Your task to perform on an android device: View the shopping cart on newegg. Search for macbook pro 15 inch on newegg, select the first entry, add it to the cart, then select checkout. Image 0: 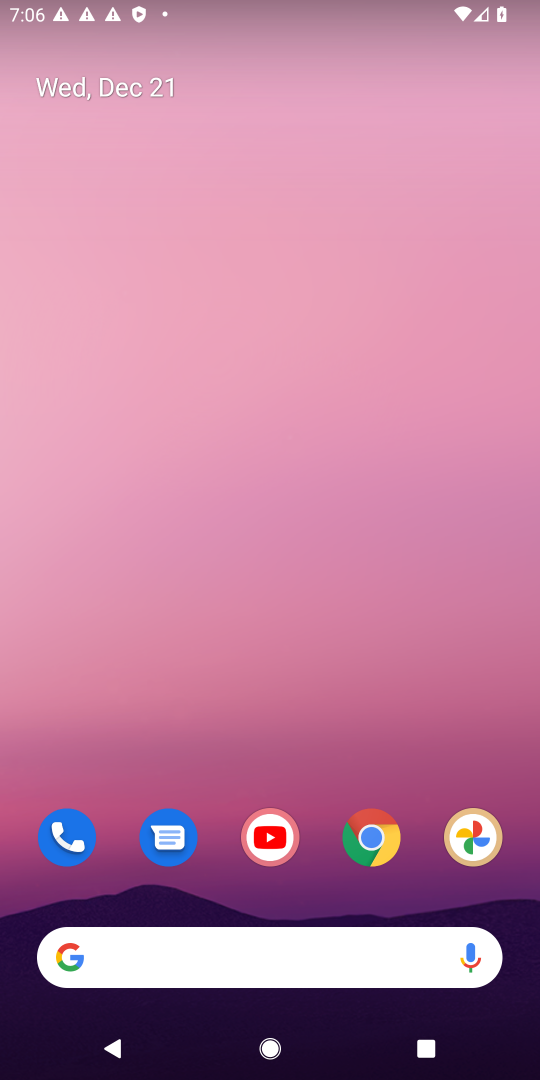
Step 0: click (237, 260)
Your task to perform on an android device: View the shopping cart on newegg. Search for macbook pro 15 inch on newegg, select the first entry, add it to the cart, then select checkout. Image 1: 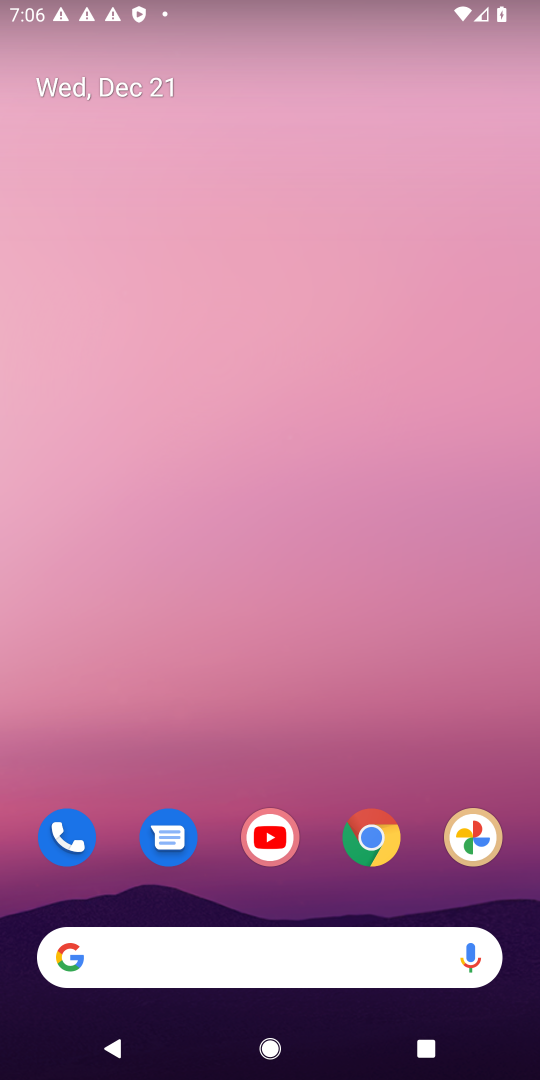
Step 1: drag from (203, 946) to (181, 263)
Your task to perform on an android device: View the shopping cart on newegg. Search for macbook pro 15 inch on newegg, select the first entry, add it to the cart, then select checkout. Image 2: 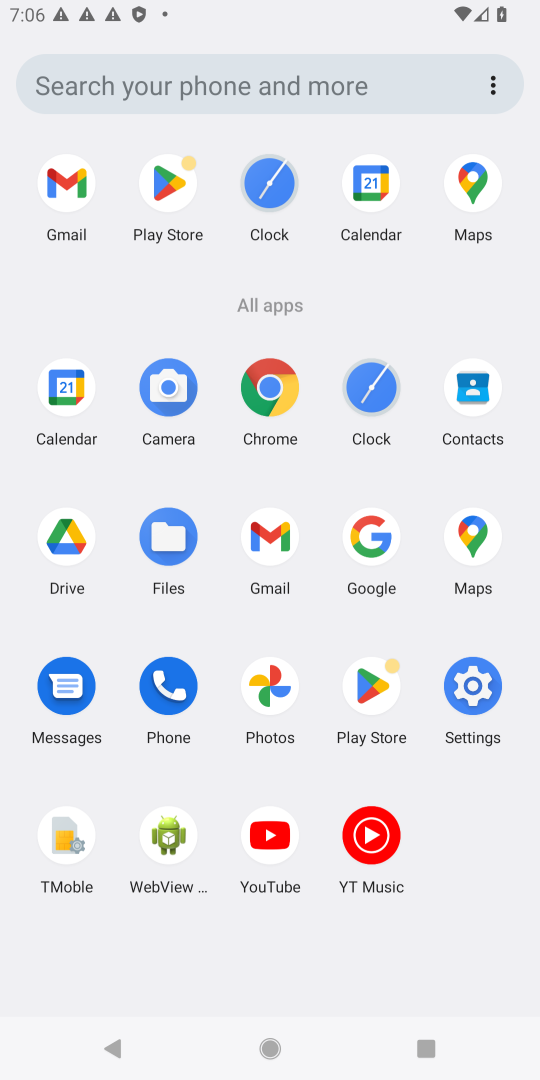
Step 2: drag from (279, 471) to (272, 81)
Your task to perform on an android device: View the shopping cart on newegg. Search for macbook pro 15 inch on newegg, select the first entry, add it to the cart, then select checkout. Image 3: 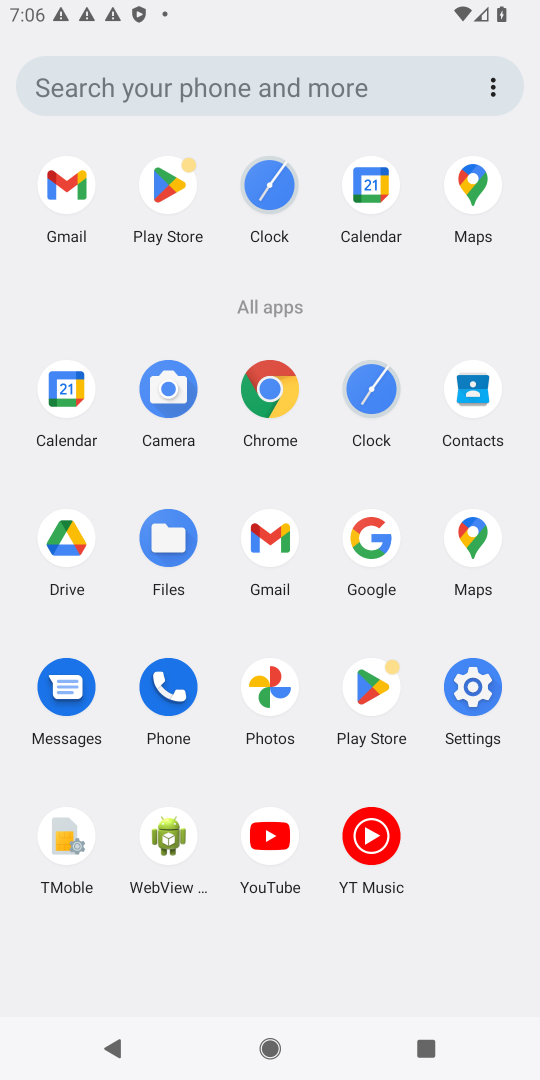
Step 3: click (364, 562)
Your task to perform on an android device: View the shopping cart on newegg. Search for macbook pro 15 inch on newegg, select the first entry, add it to the cart, then select checkout. Image 4: 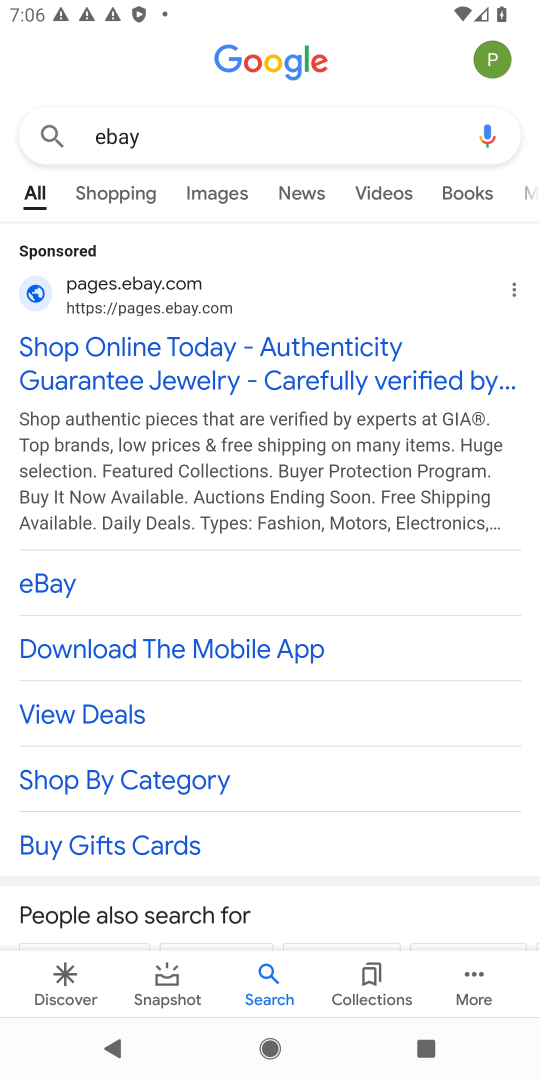
Step 4: click (126, 136)
Your task to perform on an android device: View the shopping cart on newegg. Search for macbook pro 15 inch on newegg, select the first entry, add it to the cart, then select checkout. Image 5: 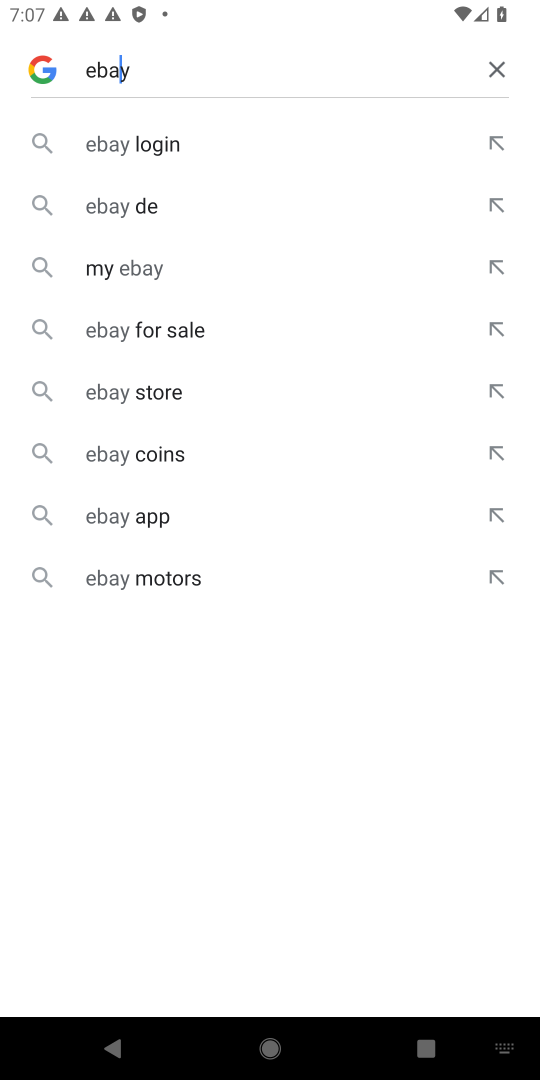
Step 5: click (499, 69)
Your task to perform on an android device: View the shopping cart on newegg. Search for macbook pro 15 inch on newegg, select the first entry, add it to the cart, then select checkout. Image 6: 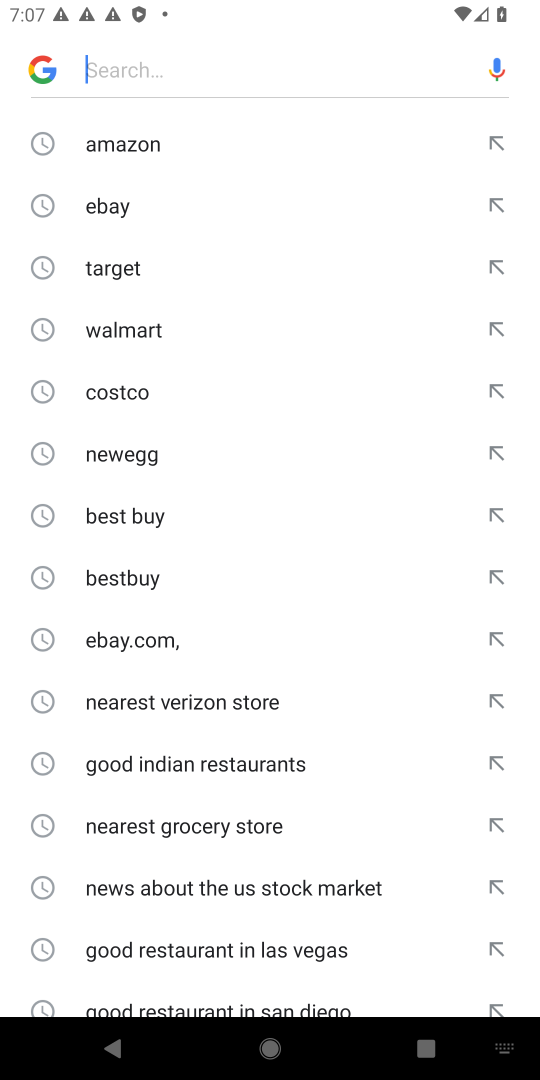
Step 6: click (136, 457)
Your task to perform on an android device: View the shopping cart on newegg. Search for macbook pro 15 inch on newegg, select the first entry, add it to the cart, then select checkout. Image 7: 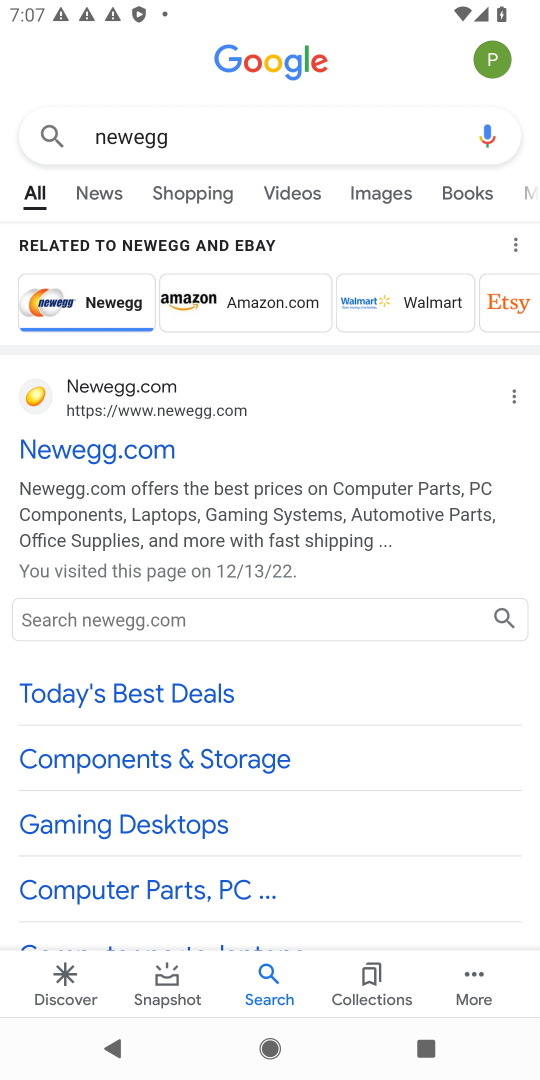
Step 7: click (121, 440)
Your task to perform on an android device: View the shopping cart on newegg. Search for macbook pro 15 inch on newegg, select the first entry, add it to the cart, then select checkout. Image 8: 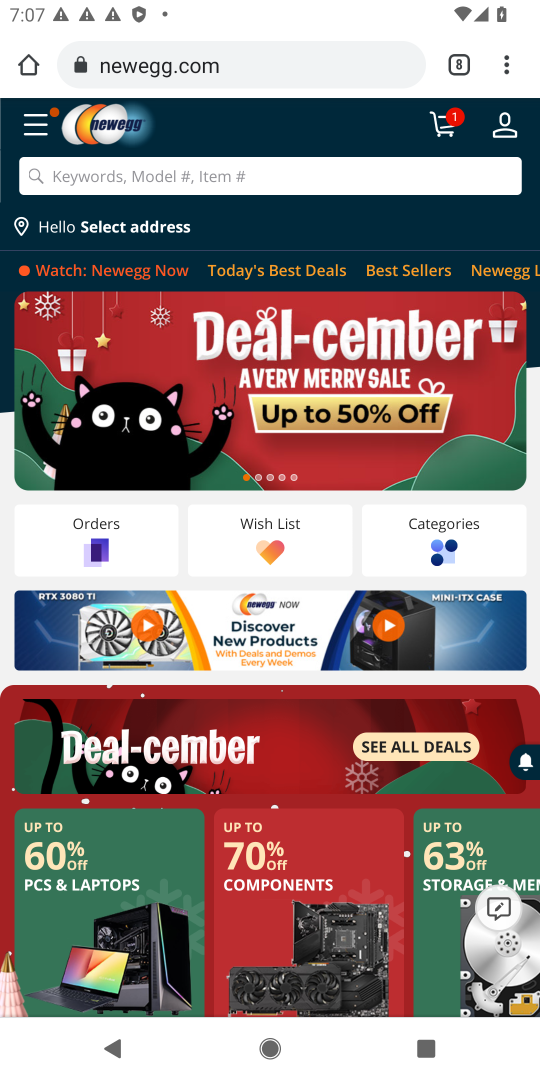
Step 8: click (455, 142)
Your task to perform on an android device: View the shopping cart on newegg. Search for macbook pro 15 inch on newegg, select the first entry, add it to the cart, then select checkout. Image 9: 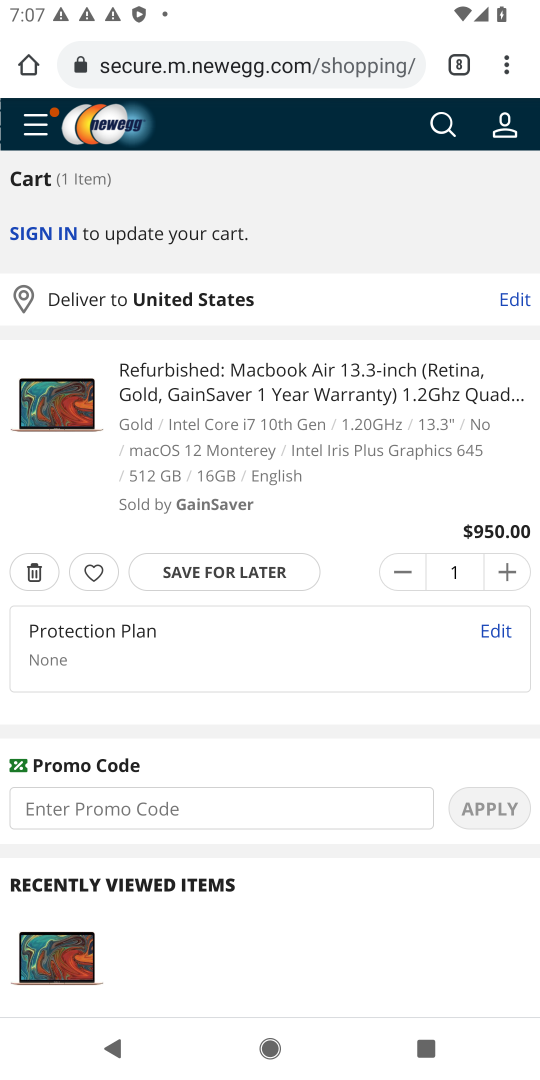
Step 9: click (444, 119)
Your task to perform on an android device: View the shopping cart on newegg. Search for macbook pro 15 inch on newegg, select the first entry, add it to the cart, then select checkout. Image 10: 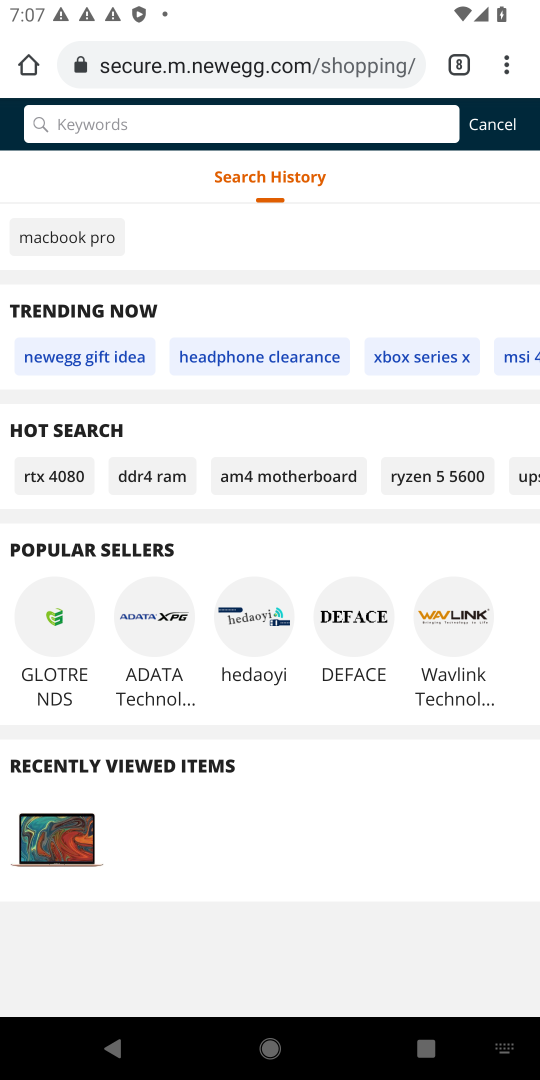
Step 10: type "macbook pro"
Your task to perform on an android device: View the shopping cart on newegg. Search for macbook pro 15 inch on newegg, select the first entry, add it to the cart, then select checkout. Image 11: 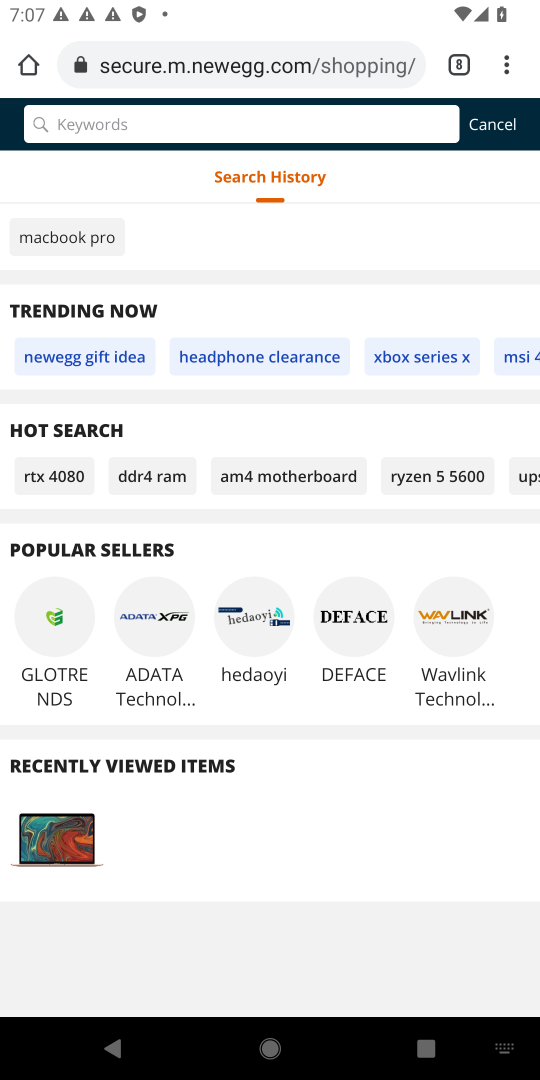
Step 11: click (37, 124)
Your task to perform on an android device: View the shopping cart on newegg. Search for macbook pro 15 inch on newegg, select the first entry, add it to the cart, then select checkout. Image 12: 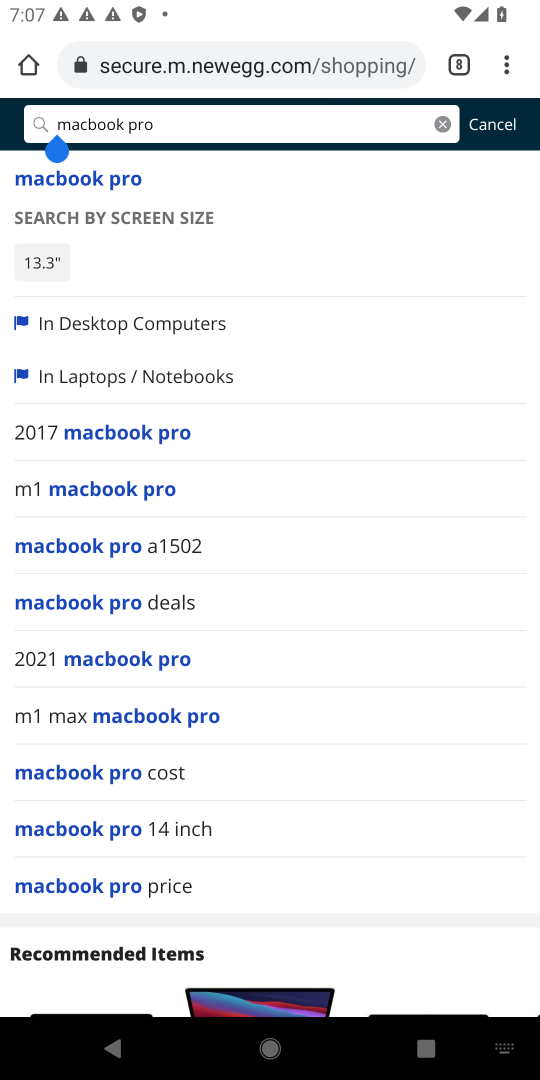
Step 12: click (146, 440)
Your task to perform on an android device: View the shopping cart on newegg. Search for macbook pro 15 inch on newegg, select the first entry, add it to the cart, then select checkout. Image 13: 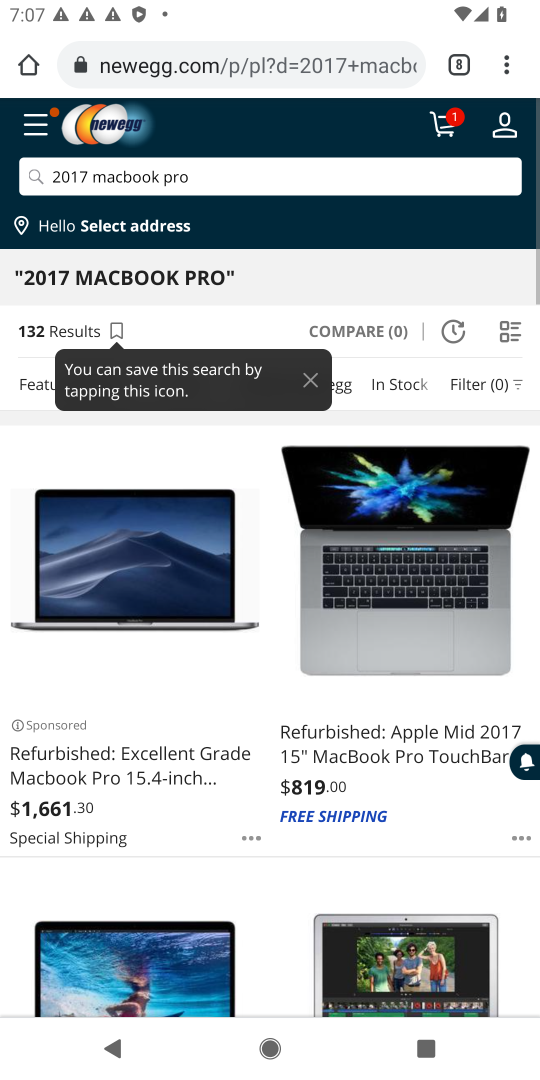
Step 13: click (156, 760)
Your task to perform on an android device: View the shopping cart on newegg. Search for macbook pro 15 inch on newegg, select the first entry, add it to the cart, then select checkout. Image 14: 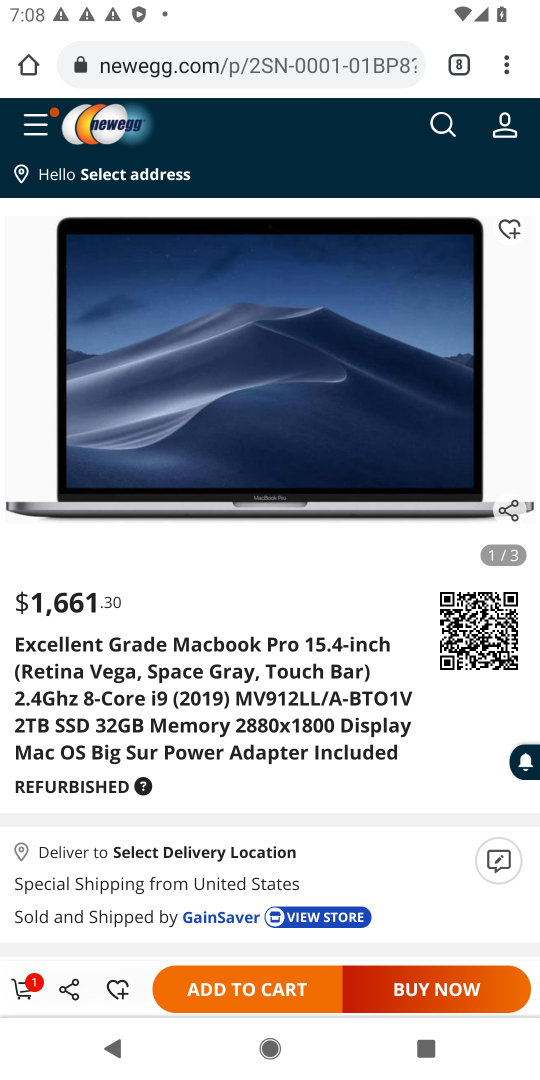
Step 14: click (257, 993)
Your task to perform on an android device: View the shopping cart on newegg. Search for macbook pro 15 inch on newegg, select the first entry, add it to the cart, then select checkout. Image 15: 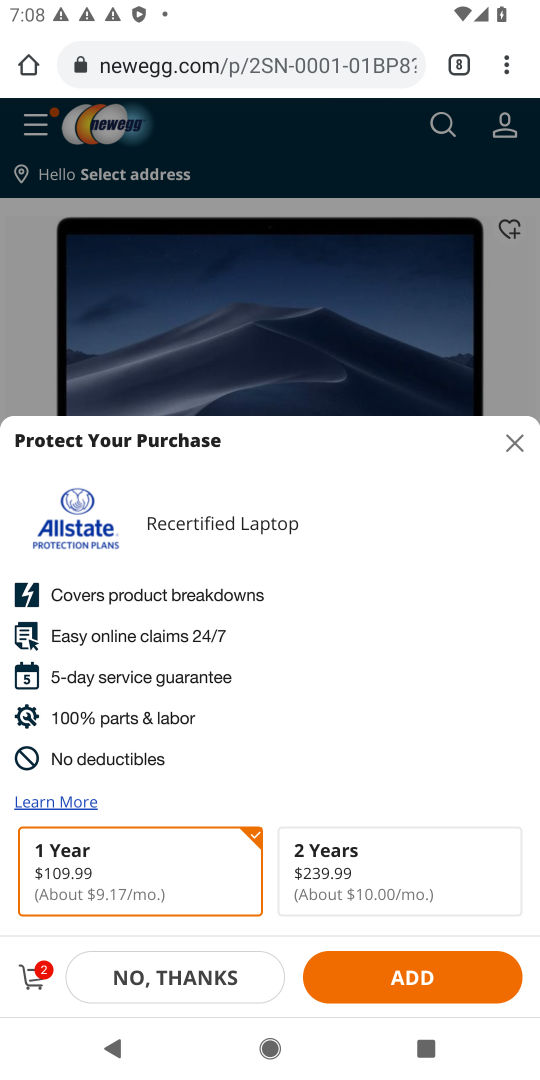
Step 15: click (513, 442)
Your task to perform on an android device: View the shopping cart on newegg. Search for macbook pro 15 inch on newegg, select the first entry, add it to the cart, then select checkout. Image 16: 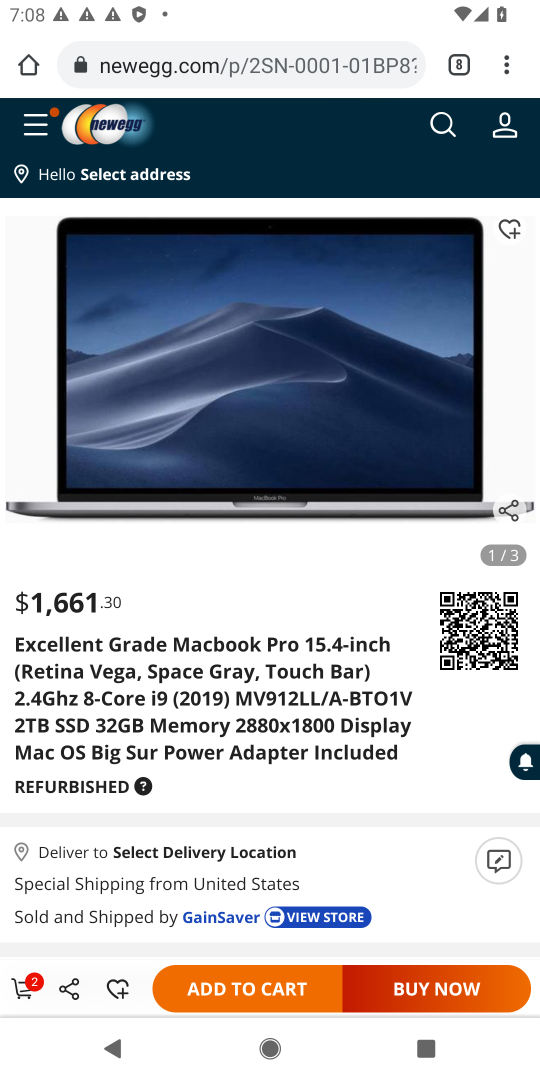
Step 16: click (32, 990)
Your task to perform on an android device: View the shopping cart on newegg. Search for macbook pro 15 inch on newegg, select the first entry, add it to the cart, then select checkout. Image 17: 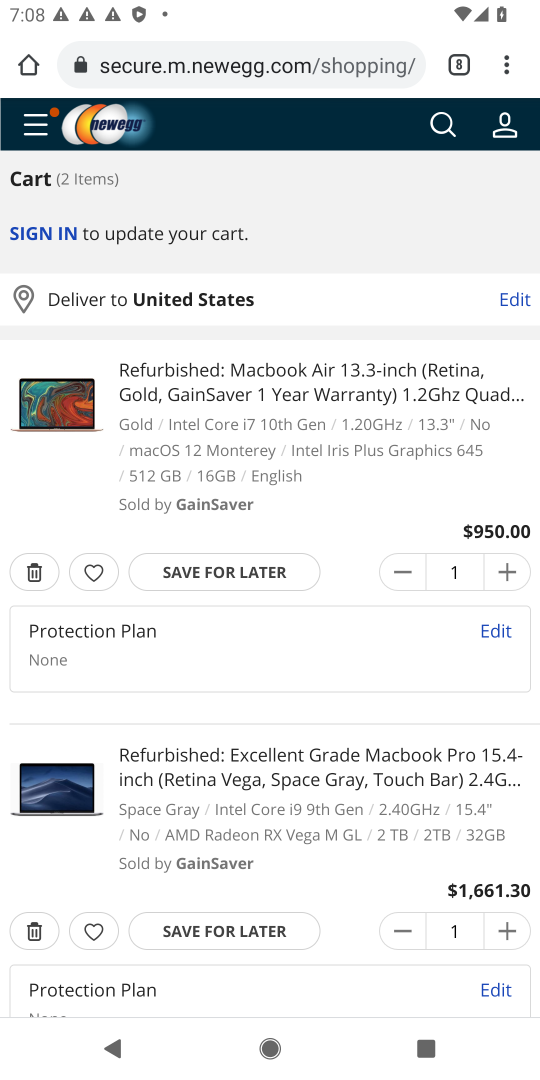
Step 17: click (205, 926)
Your task to perform on an android device: View the shopping cart on newegg. Search for macbook pro 15 inch on newegg, select the first entry, add it to the cart, then select checkout. Image 18: 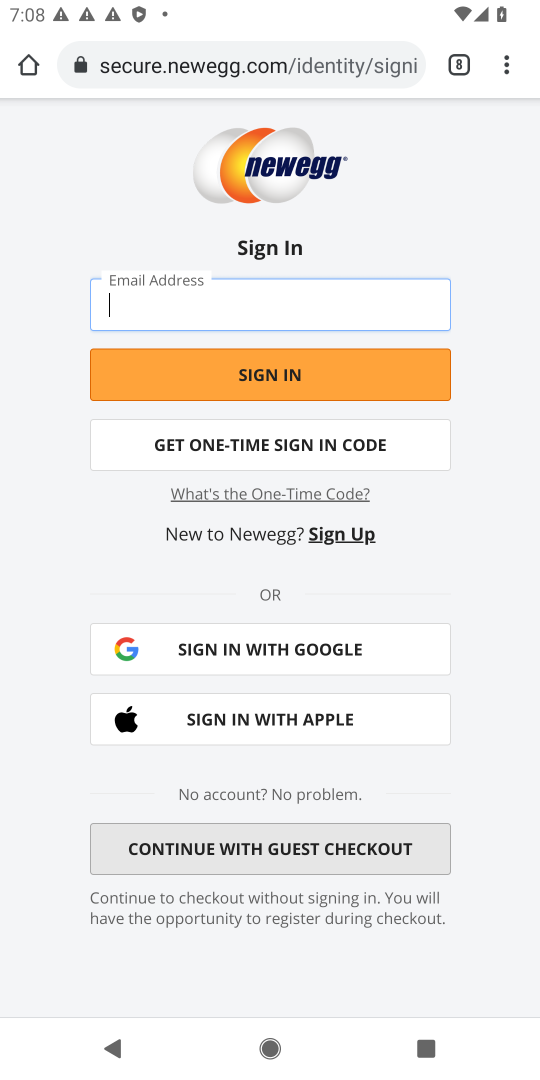
Step 18: task complete